Your task to perform on an android device: Empty the shopping cart on ebay.com. Search for "logitech g910" on ebay.com, select the first entry, and add it to the cart. Image 0: 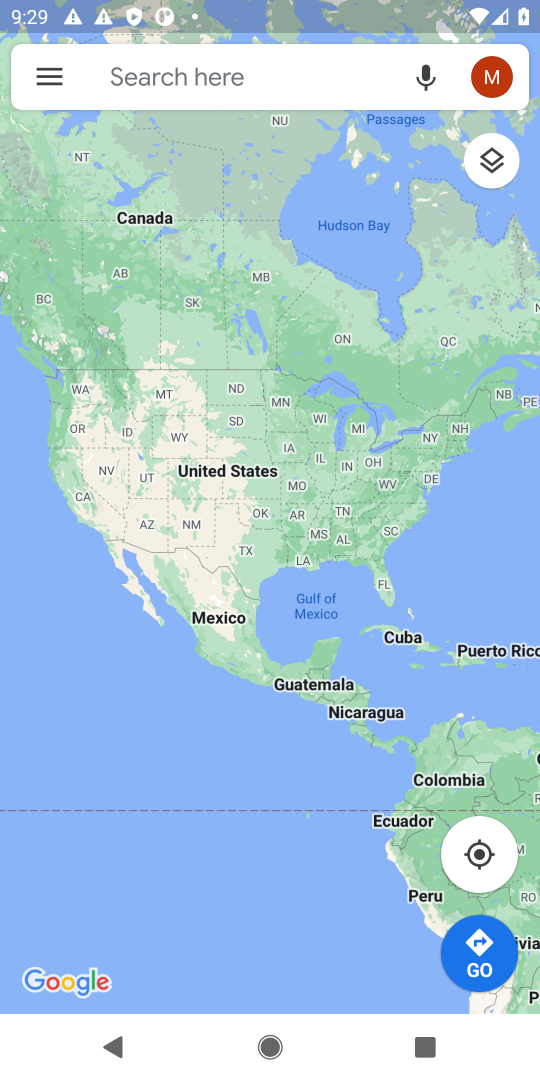
Step 0: press home button
Your task to perform on an android device: Empty the shopping cart on ebay.com. Search for "logitech g910" on ebay.com, select the first entry, and add it to the cart. Image 1: 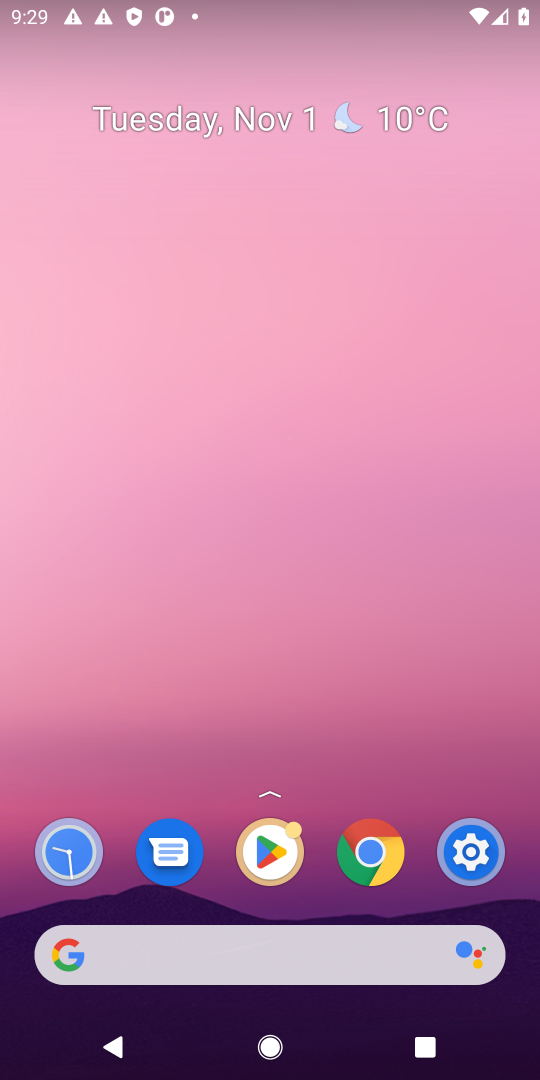
Step 1: click (71, 958)
Your task to perform on an android device: Empty the shopping cart on ebay.com. Search for "logitech g910" on ebay.com, select the first entry, and add it to the cart. Image 2: 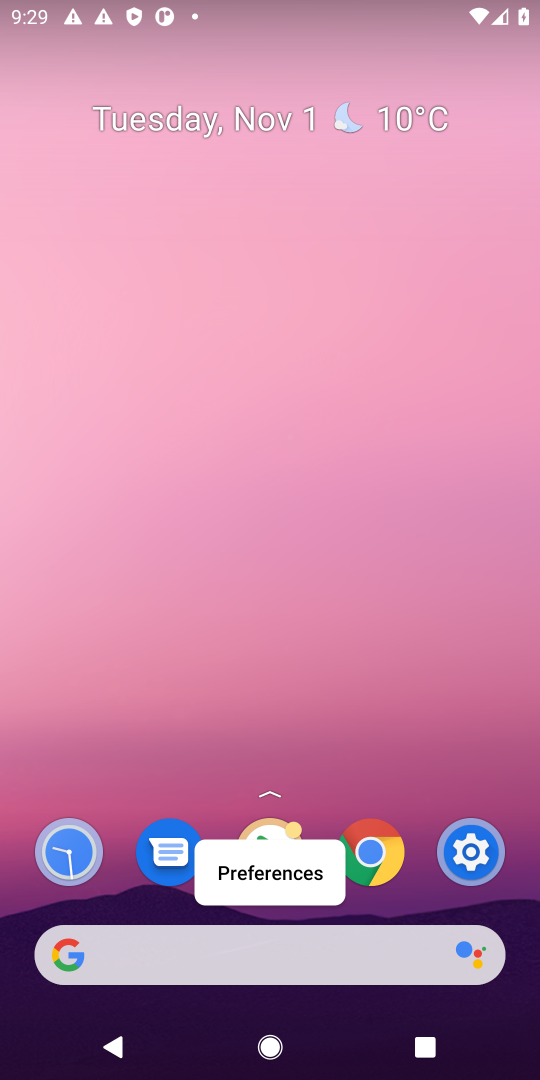
Step 2: click (71, 955)
Your task to perform on an android device: Empty the shopping cart on ebay.com. Search for "logitech g910" on ebay.com, select the first entry, and add it to the cart. Image 3: 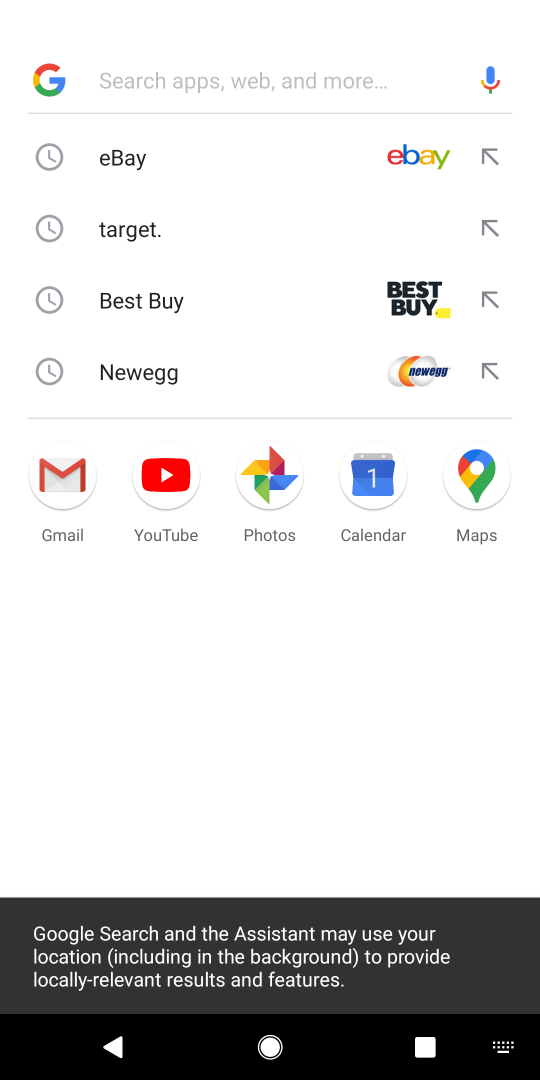
Step 3: click (126, 162)
Your task to perform on an android device: Empty the shopping cart on ebay.com. Search for "logitech g910" on ebay.com, select the first entry, and add it to the cart. Image 4: 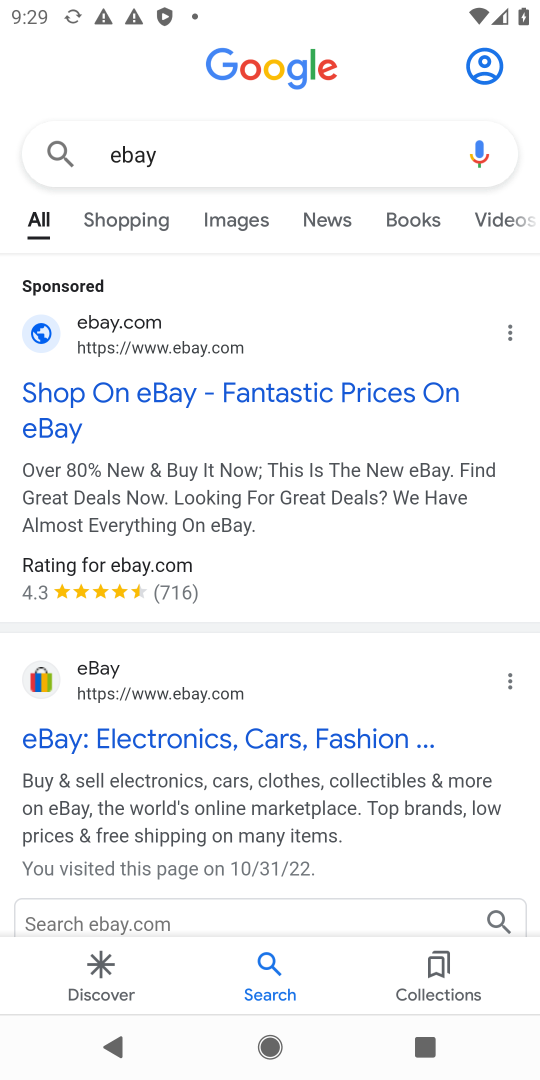
Step 4: click (142, 744)
Your task to perform on an android device: Empty the shopping cart on ebay.com. Search for "logitech g910" on ebay.com, select the first entry, and add it to the cart. Image 5: 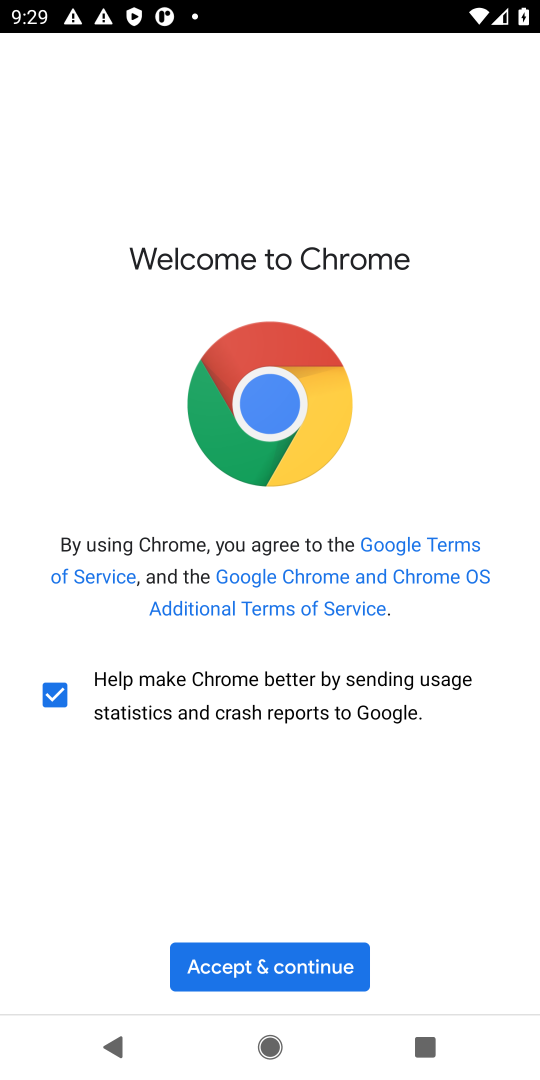
Step 5: click (289, 951)
Your task to perform on an android device: Empty the shopping cart on ebay.com. Search for "logitech g910" on ebay.com, select the first entry, and add it to the cart. Image 6: 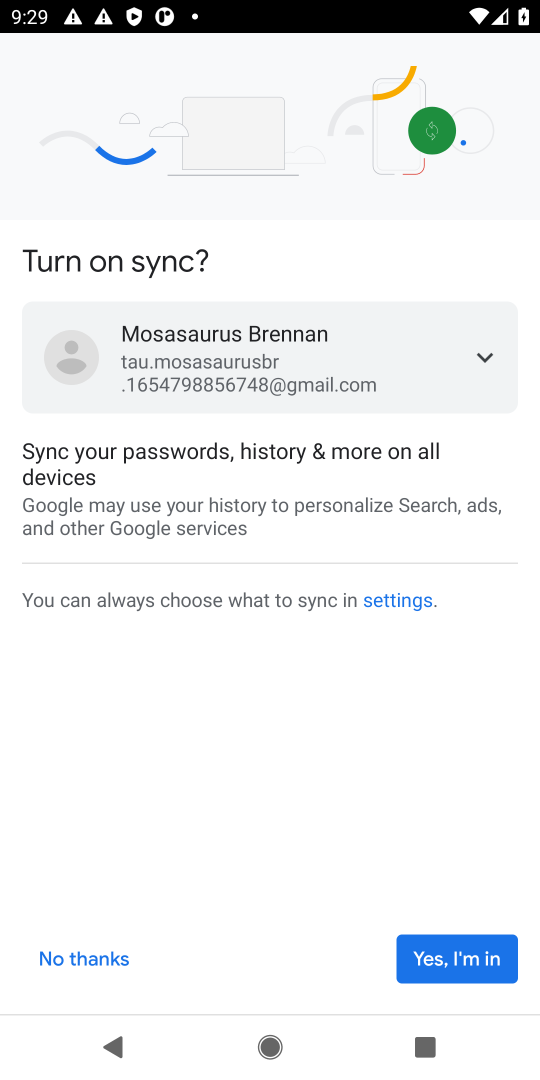
Step 6: click (458, 953)
Your task to perform on an android device: Empty the shopping cart on ebay.com. Search for "logitech g910" on ebay.com, select the first entry, and add it to the cart. Image 7: 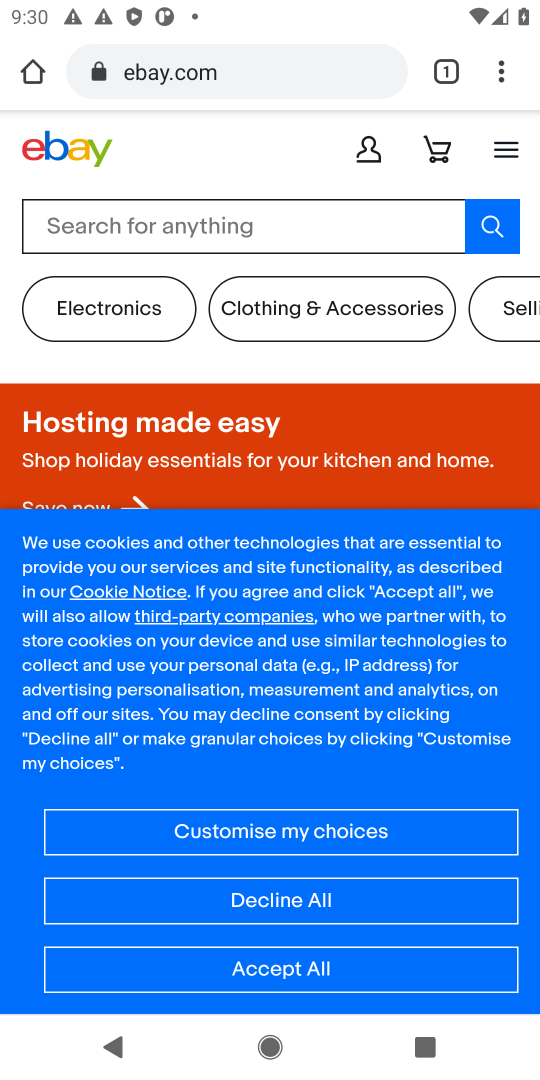
Step 7: click (187, 224)
Your task to perform on an android device: Empty the shopping cart on ebay.com. Search for "logitech g910" on ebay.com, select the first entry, and add it to the cart. Image 8: 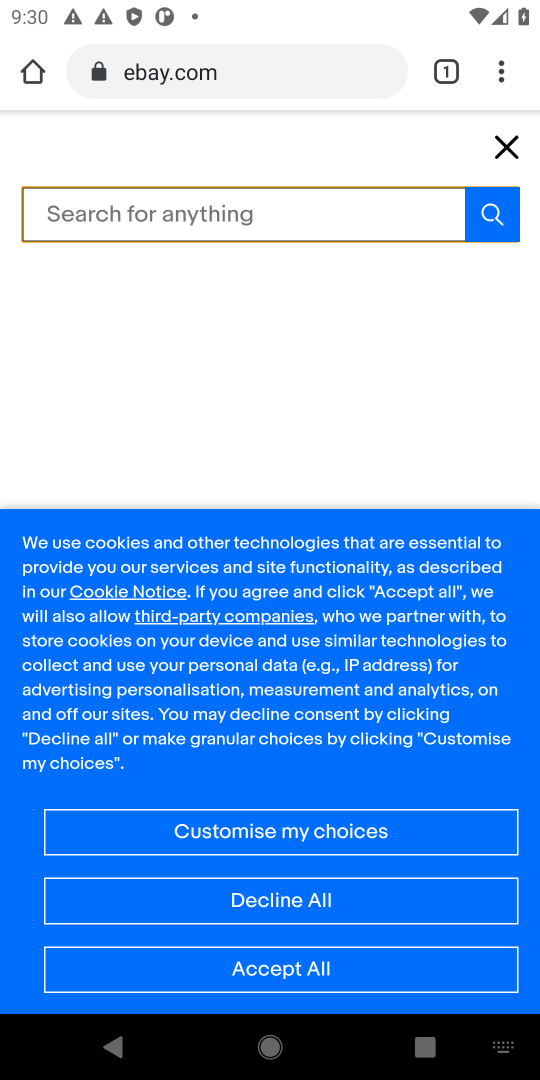
Step 8: click (153, 222)
Your task to perform on an android device: Empty the shopping cart on ebay.com. Search for "logitech g910" on ebay.com, select the first entry, and add it to the cart. Image 9: 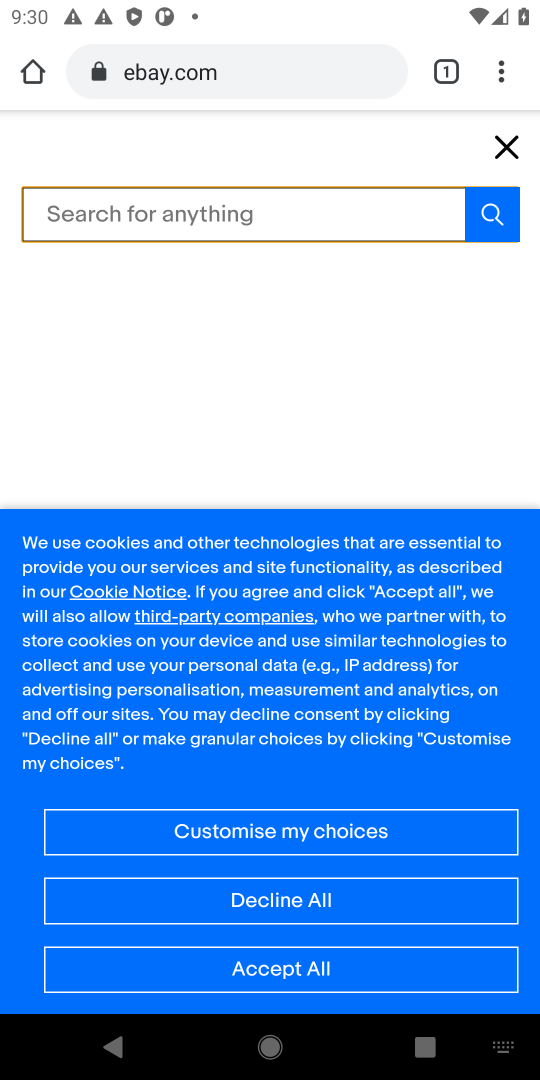
Step 9: type "logitech g910"
Your task to perform on an android device: Empty the shopping cart on ebay.com. Search for "logitech g910" on ebay.com, select the first entry, and add it to the cart. Image 10: 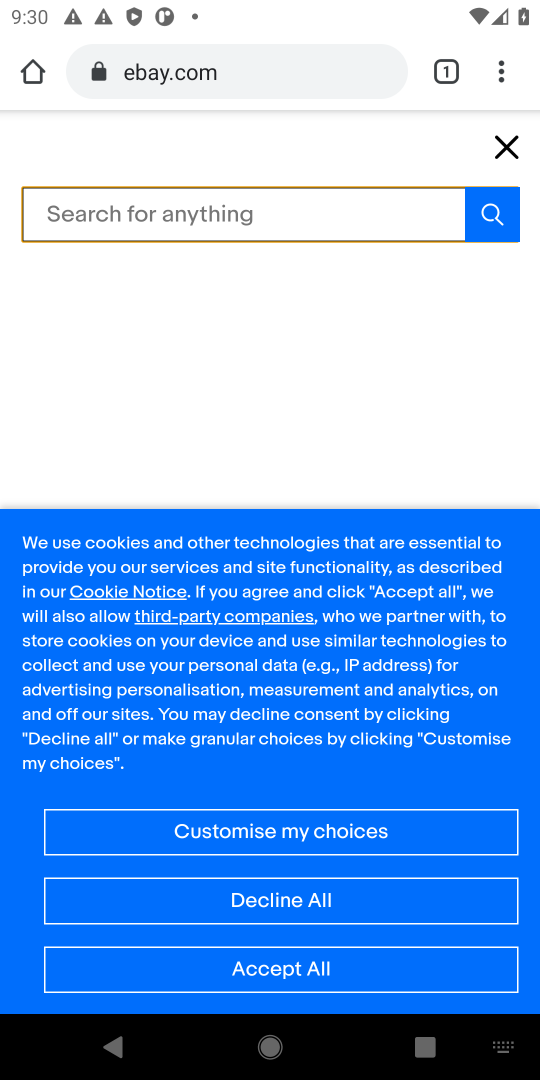
Step 10: click (214, 213)
Your task to perform on an android device: Empty the shopping cart on ebay.com. Search for "logitech g910" on ebay.com, select the first entry, and add it to the cart. Image 11: 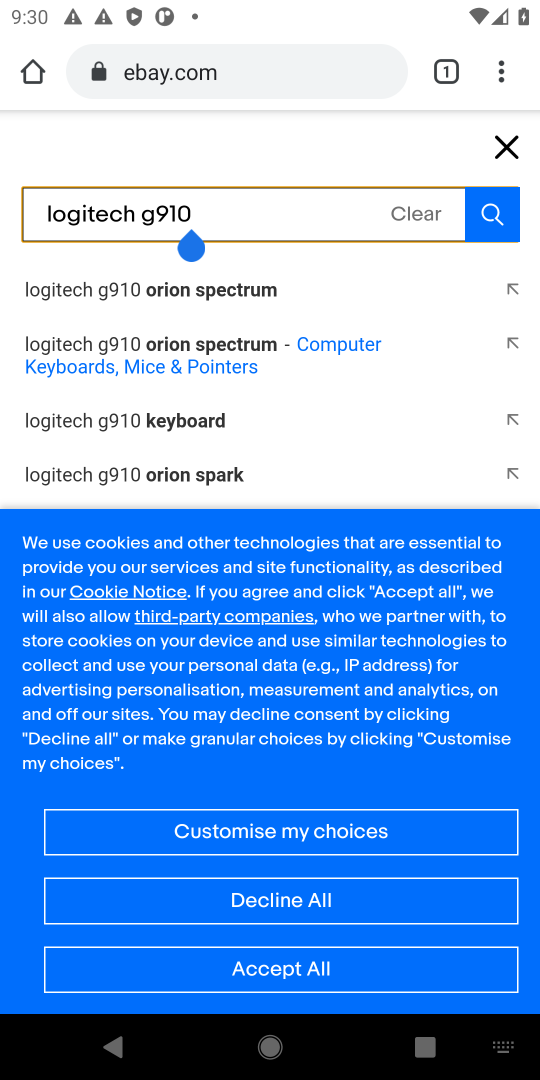
Step 11: press enter
Your task to perform on an android device: Empty the shopping cart on ebay.com. Search for "logitech g910" on ebay.com, select the first entry, and add it to the cart. Image 12: 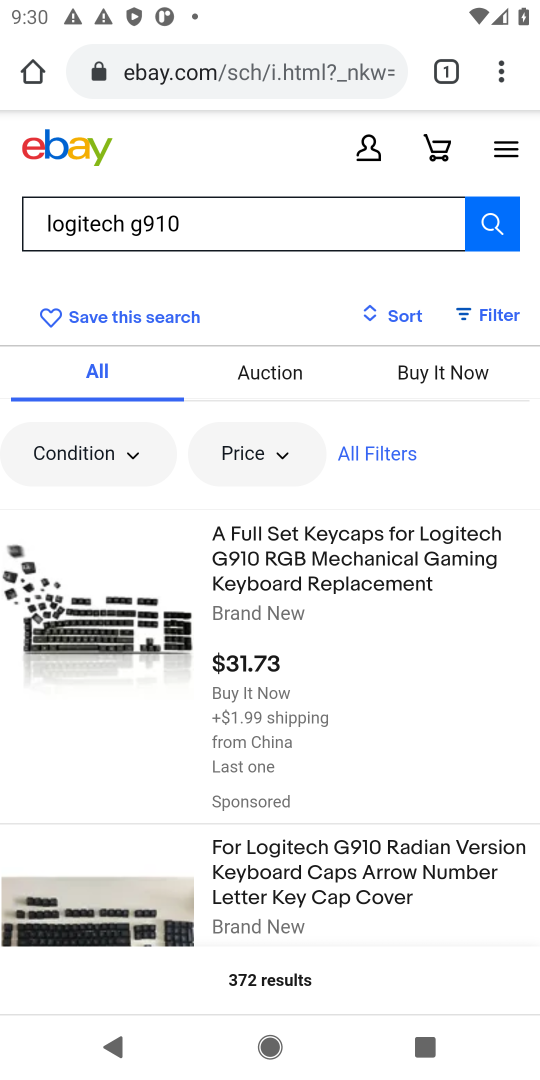
Step 12: click (357, 552)
Your task to perform on an android device: Empty the shopping cart on ebay.com. Search for "logitech g910" on ebay.com, select the first entry, and add it to the cart. Image 13: 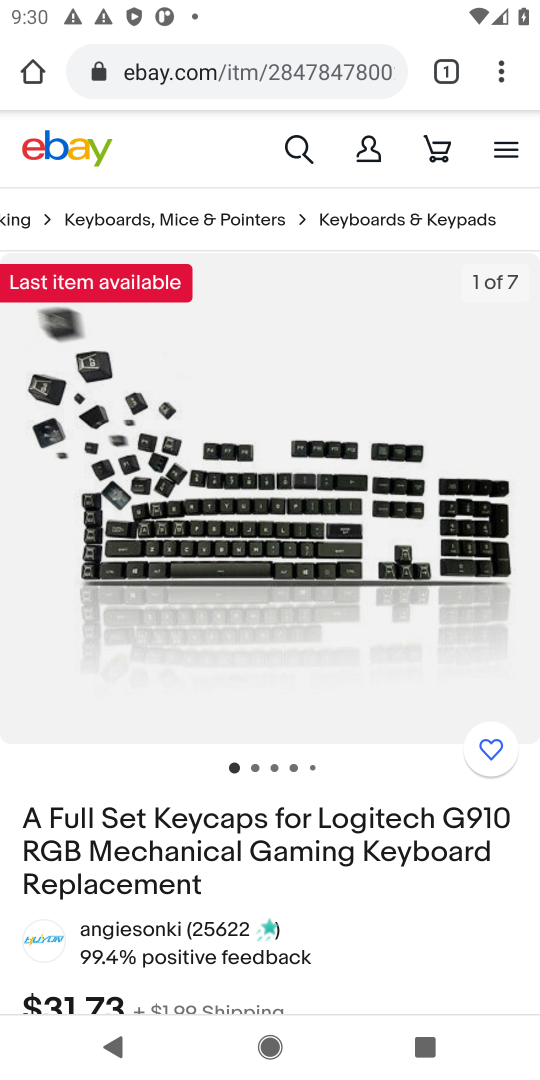
Step 13: drag from (420, 951) to (364, 468)
Your task to perform on an android device: Empty the shopping cart on ebay.com. Search for "logitech g910" on ebay.com, select the first entry, and add it to the cart. Image 14: 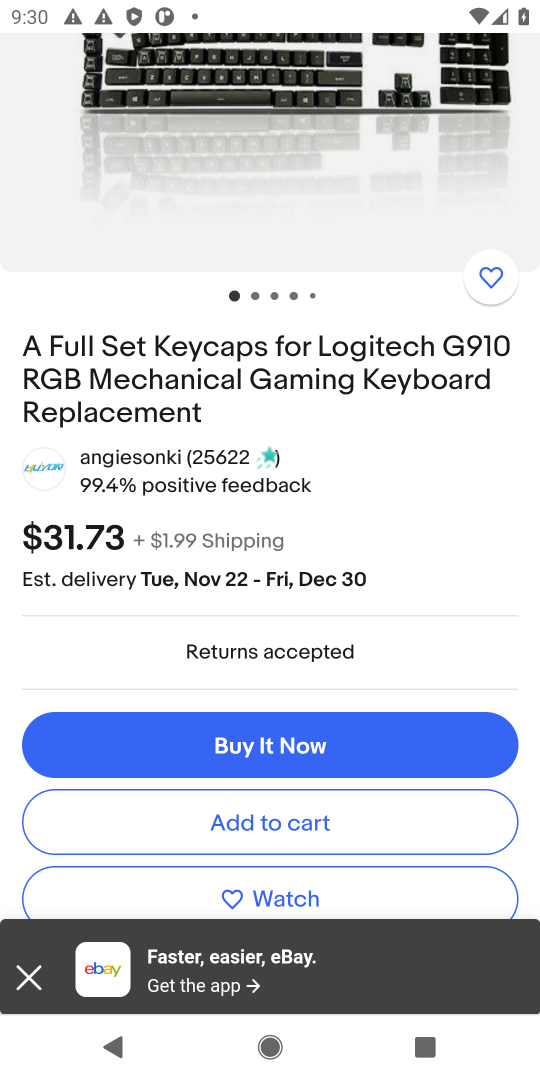
Step 14: click (265, 820)
Your task to perform on an android device: Empty the shopping cart on ebay.com. Search for "logitech g910" on ebay.com, select the first entry, and add it to the cart. Image 15: 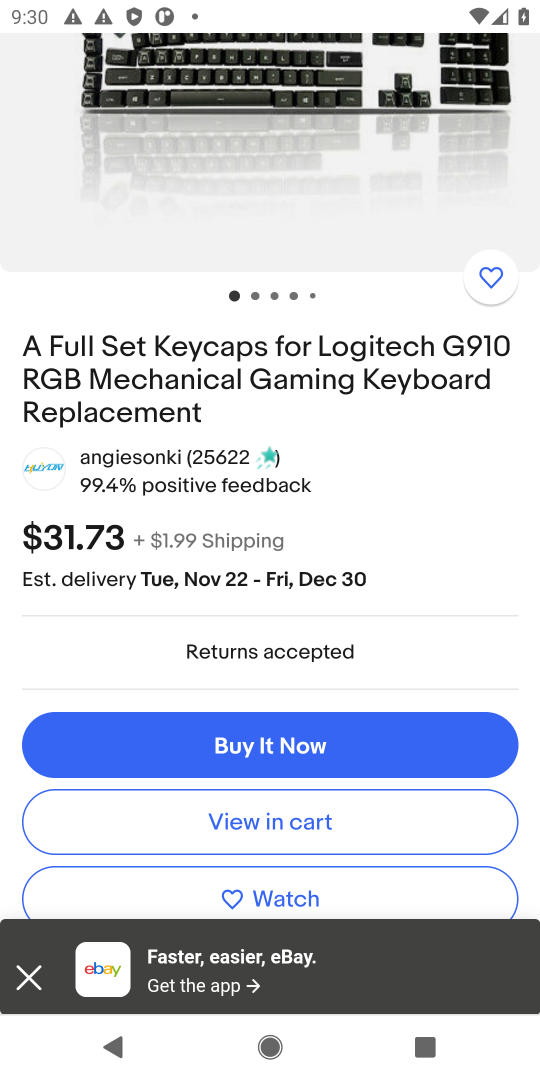
Step 15: click (223, 821)
Your task to perform on an android device: Empty the shopping cart on ebay.com. Search for "logitech g910" on ebay.com, select the first entry, and add it to the cart. Image 16: 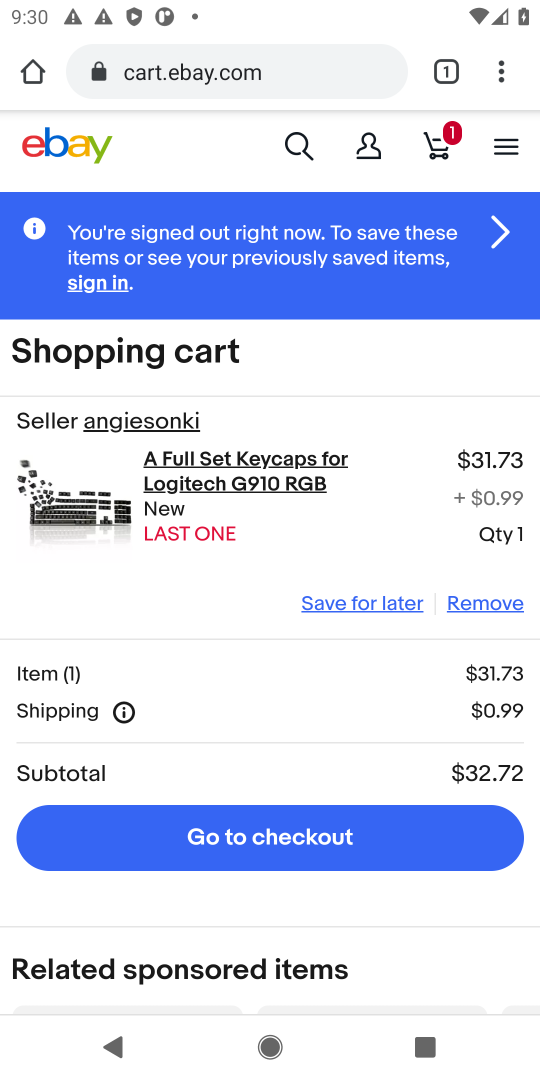
Step 16: task complete